Your task to perform on an android device: show emergency info Image 0: 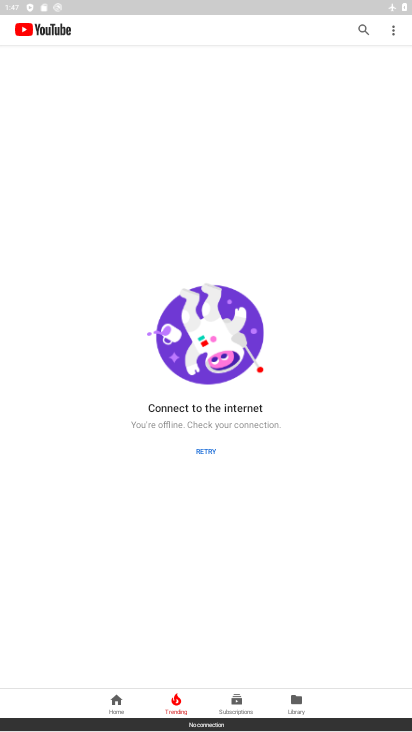
Step 0: press home button
Your task to perform on an android device: show emergency info Image 1: 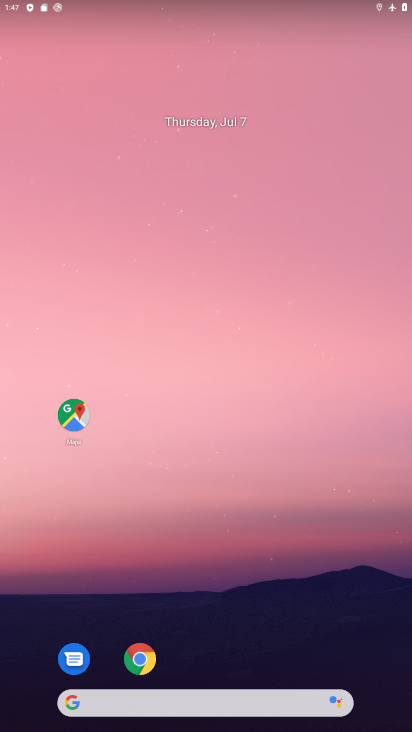
Step 1: drag from (311, 299) to (338, 10)
Your task to perform on an android device: show emergency info Image 2: 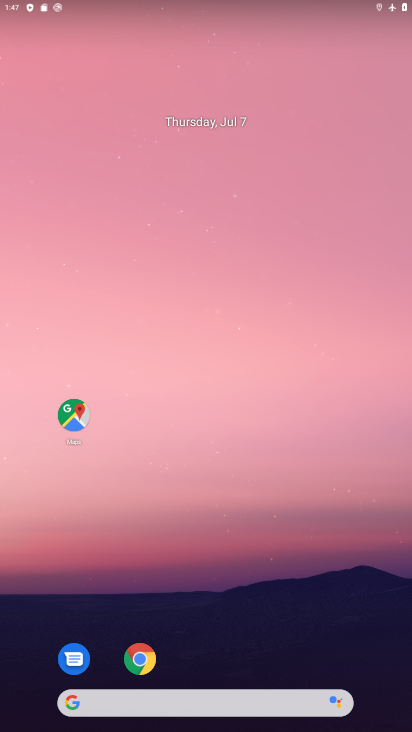
Step 2: click (338, 10)
Your task to perform on an android device: show emergency info Image 3: 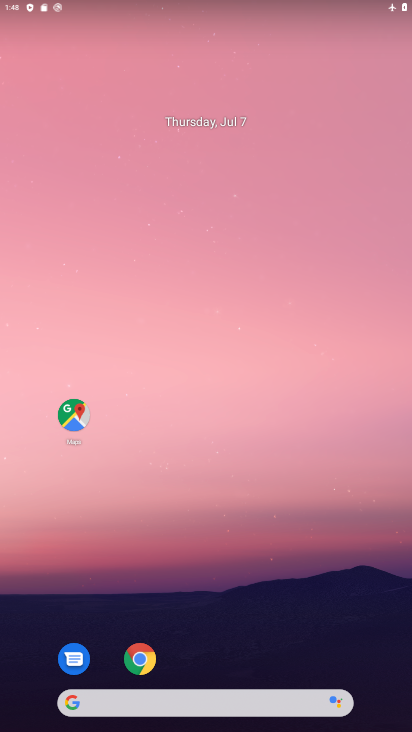
Step 3: click (251, 551)
Your task to perform on an android device: show emergency info Image 4: 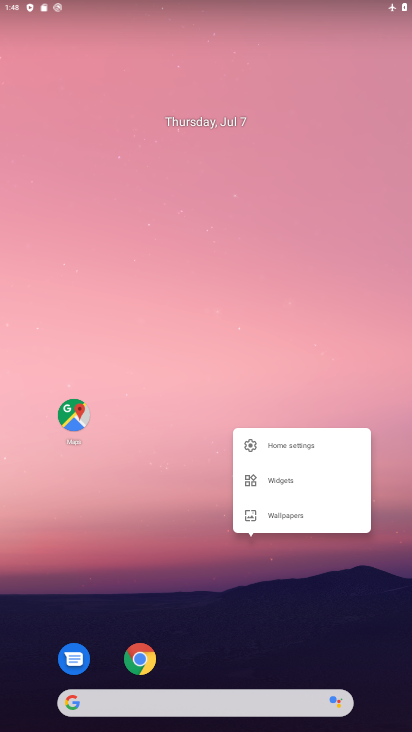
Step 4: task complete